Your task to perform on an android device: Open settings on Google Maps Image 0: 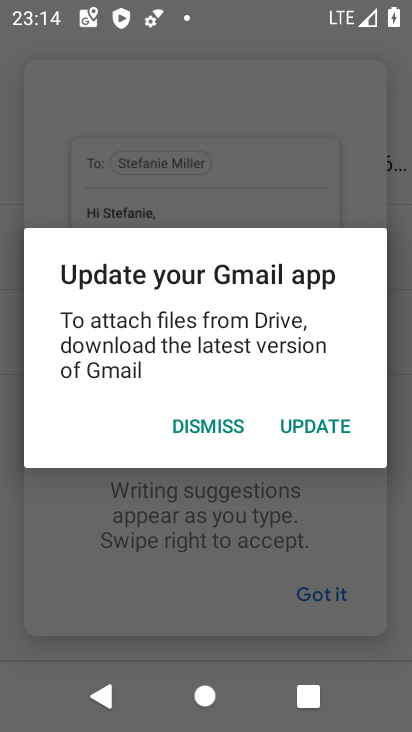
Step 0: click (211, 422)
Your task to perform on an android device: Open settings on Google Maps Image 1: 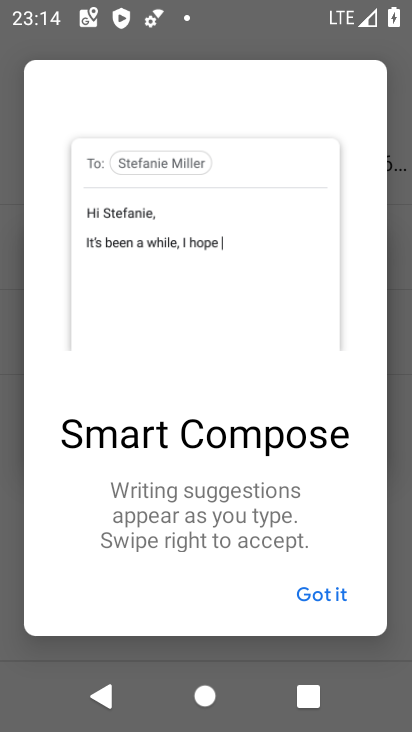
Step 1: press back button
Your task to perform on an android device: Open settings on Google Maps Image 2: 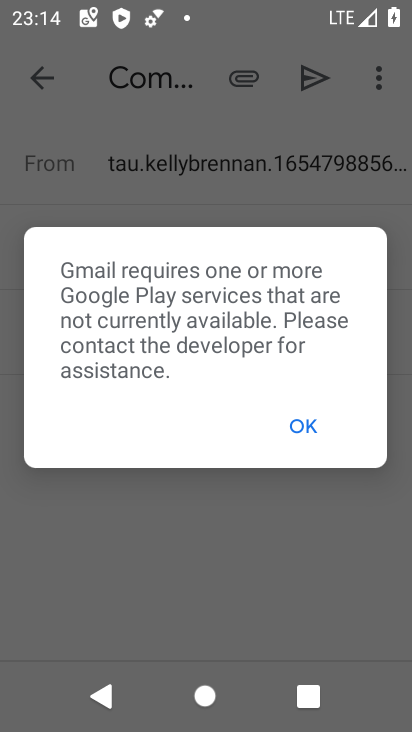
Step 2: press home button
Your task to perform on an android device: Open settings on Google Maps Image 3: 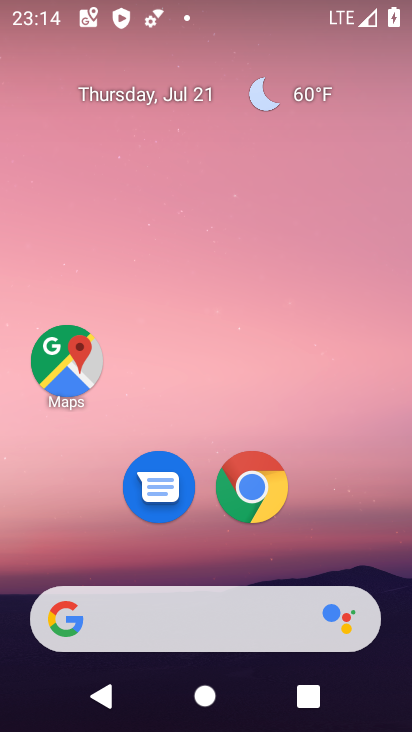
Step 3: click (63, 371)
Your task to perform on an android device: Open settings on Google Maps Image 4: 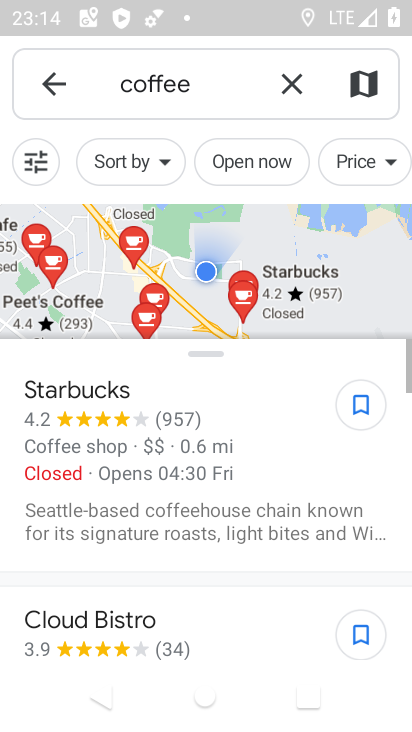
Step 4: click (49, 71)
Your task to perform on an android device: Open settings on Google Maps Image 5: 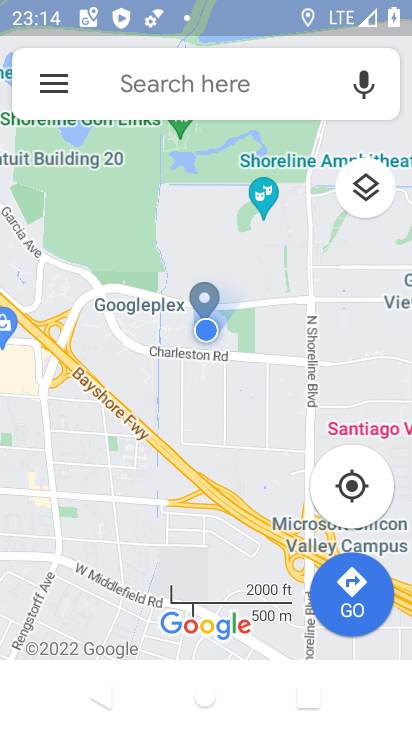
Step 5: click (57, 79)
Your task to perform on an android device: Open settings on Google Maps Image 6: 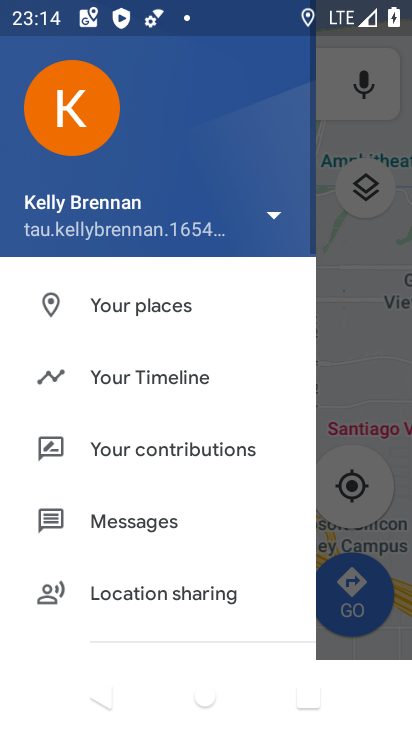
Step 6: drag from (110, 589) to (179, 36)
Your task to perform on an android device: Open settings on Google Maps Image 7: 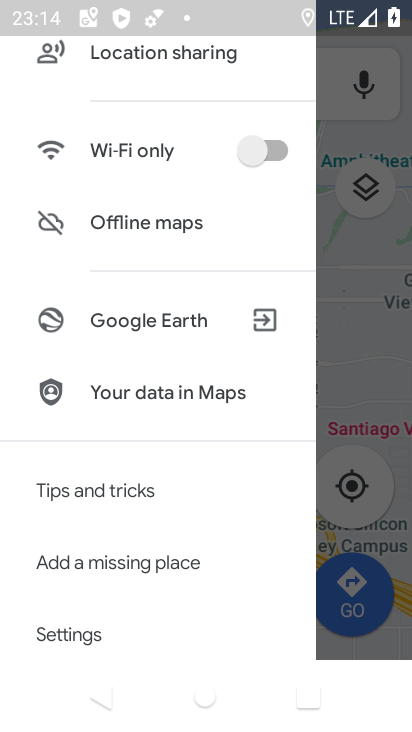
Step 7: click (89, 631)
Your task to perform on an android device: Open settings on Google Maps Image 8: 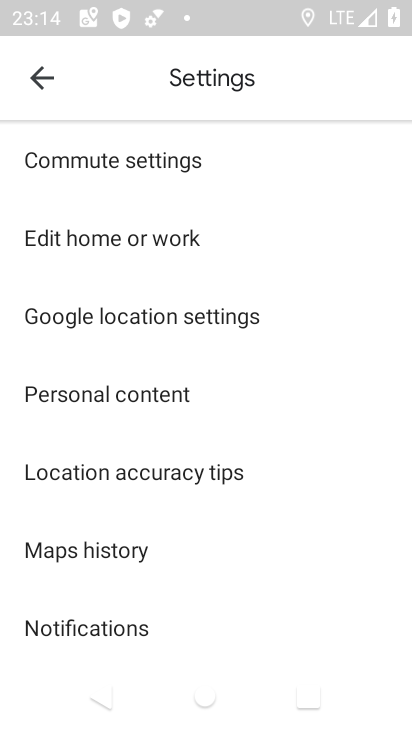
Step 8: task complete